Your task to perform on an android device: Search for pizza restaurants on Maps Image 0: 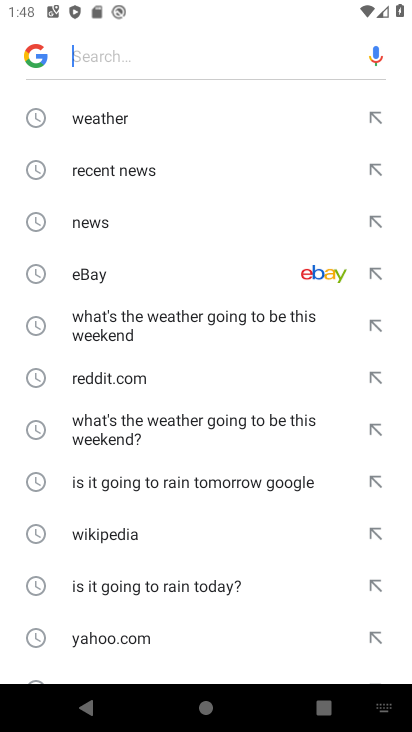
Step 0: press home button
Your task to perform on an android device: Search for pizza restaurants on Maps Image 1: 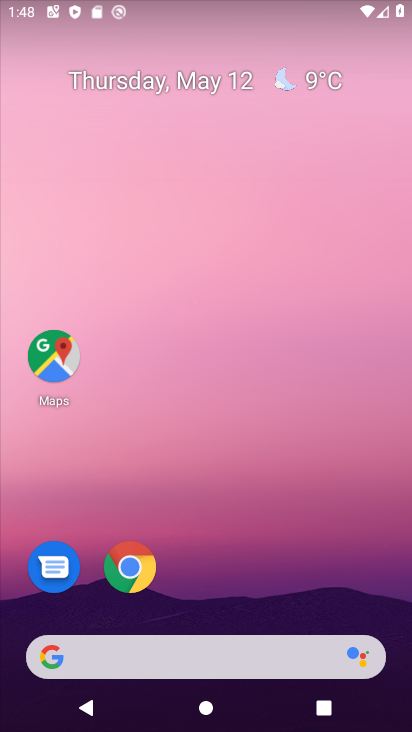
Step 1: drag from (204, 607) to (196, 179)
Your task to perform on an android device: Search for pizza restaurants on Maps Image 2: 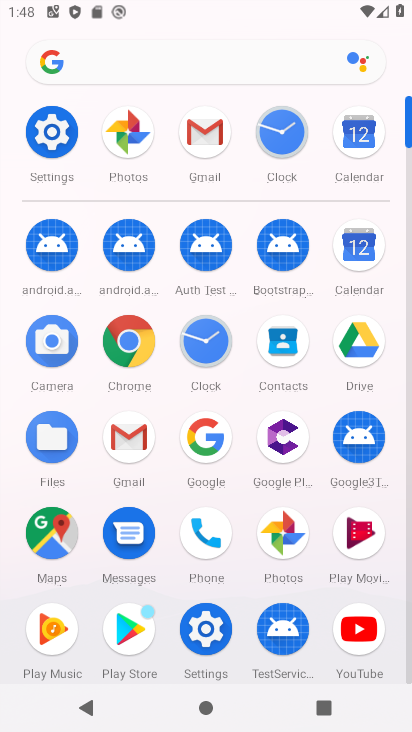
Step 2: click (49, 532)
Your task to perform on an android device: Search for pizza restaurants on Maps Image 3: 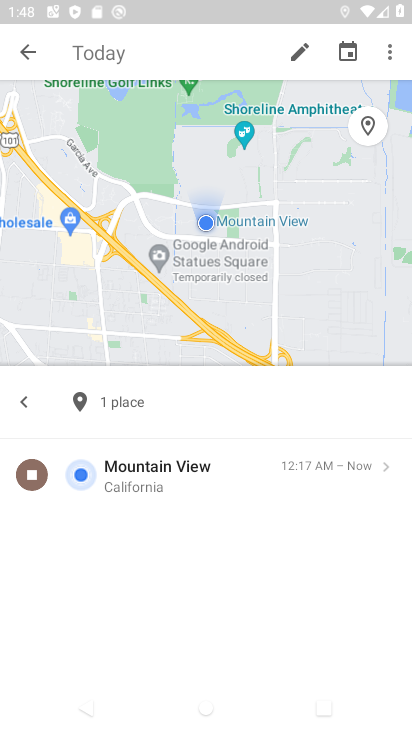
Step 3: click (33, 47)
Your task to perform on an android device: Search for pizza restaurants on Maps Image 4: 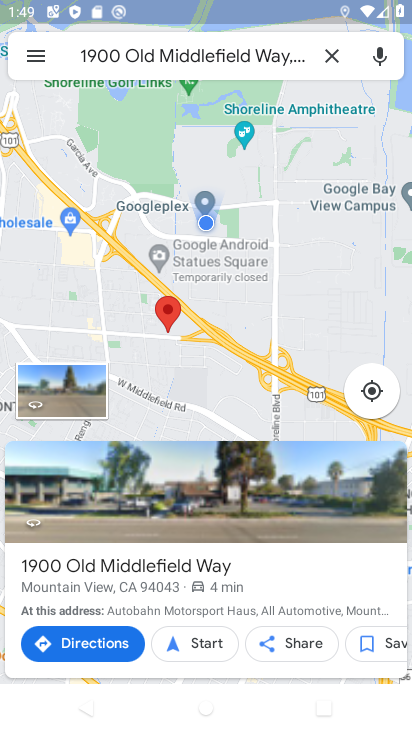
Step 4: click (327, 49)
Your task to perform on an android device: Search for pizza restaurants on Maps Image 5: 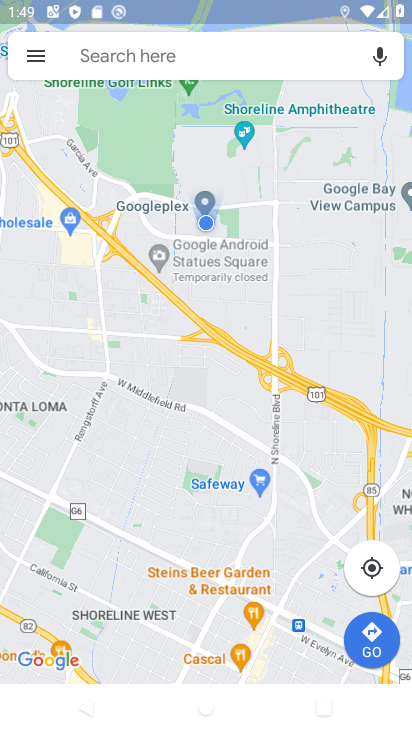
Step 5: click (143, 53)
Your task to perform on an android device: Search for pizza restaurants on Maps Image 6: 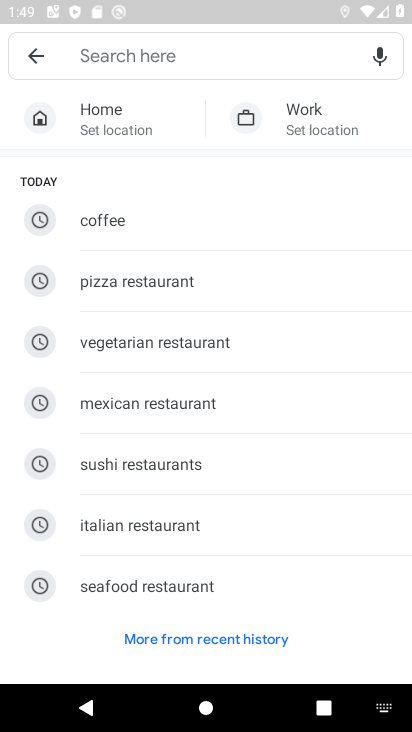
Step 6: click (147, 281)
Your task to perform on an android device: Search for pizza restaurants on Maps Image 7: 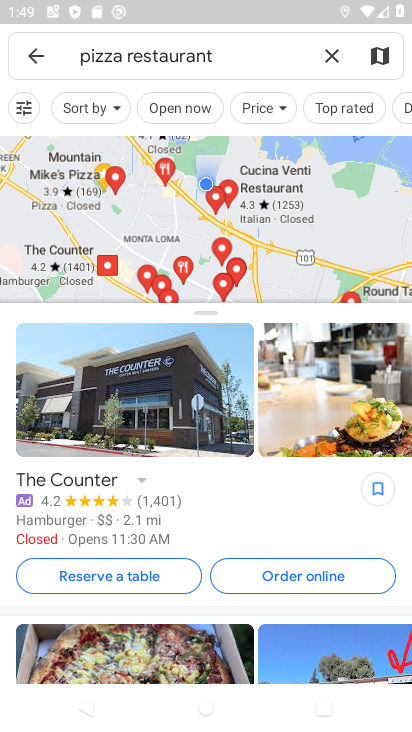
Step 7: click (210, 529)
Your task to perform on an android device: Search for pizza restaurants on Maps Image 8: 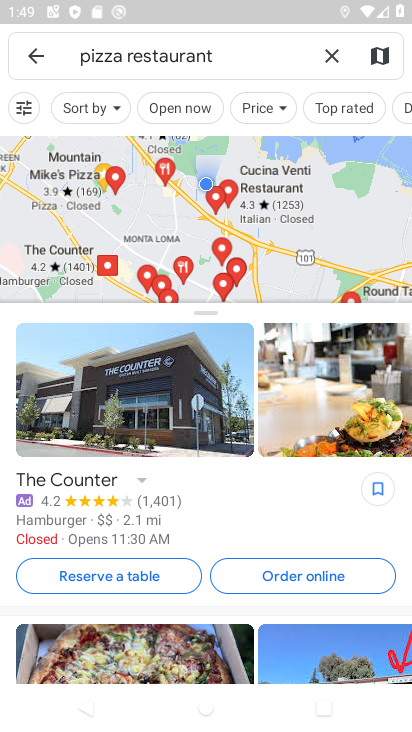
Step 8: task complete